Your task to perform on an android device: turn off airplane mode Image 0: 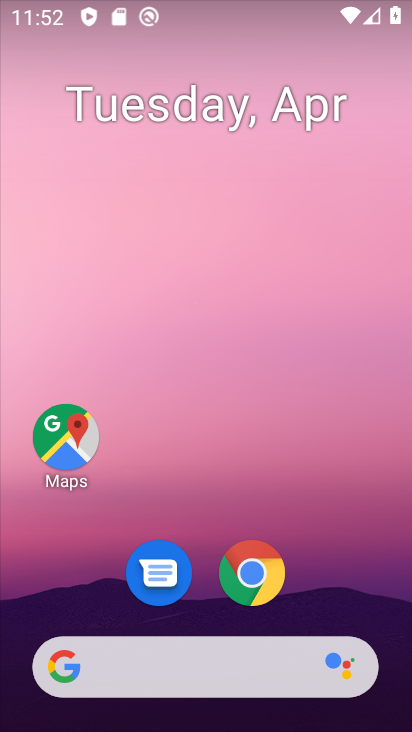
Step 0: drag from (375, 554) to (313, 74)
Your task to perform on an android device: turn off airplane mode Image 1: 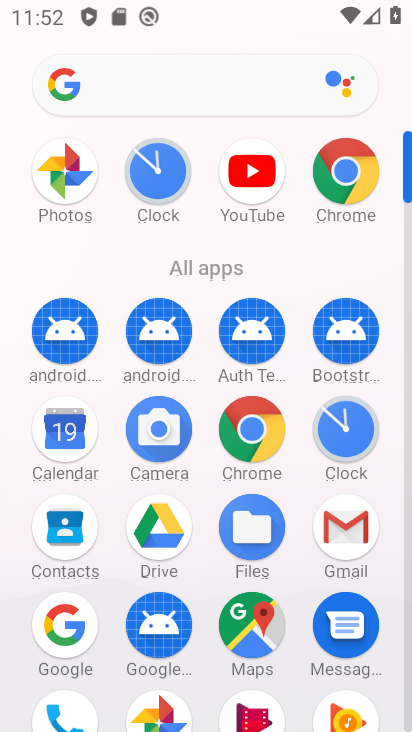
Step 1: click (407, 672)
Your task to perform on an android device: turn off airplane mode Image 2: 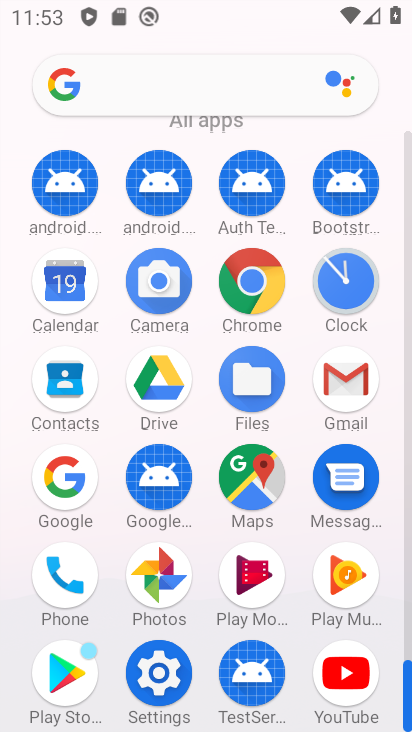
Step 2: click (173, 674)
Your task to perform on an android device: turn off airplane mode Image 3: 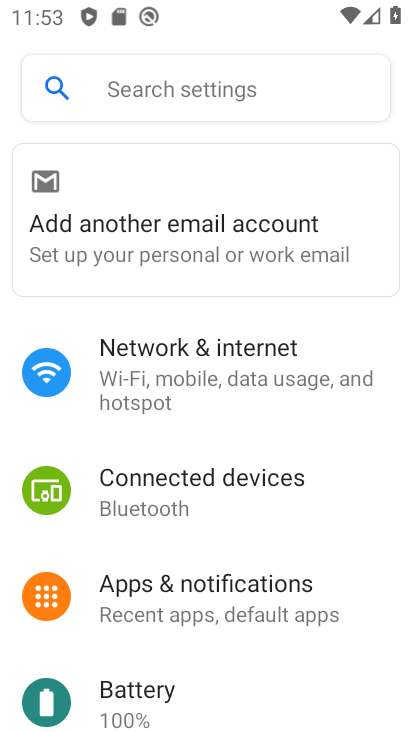
Step 3: click (323, 401)
Your task to perform on an android device: turn off airplane mode Image 4: 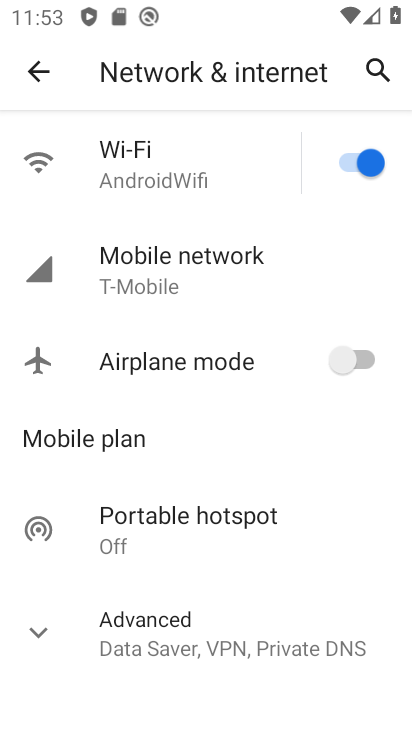
Step 4: task complete